Your task to perform on an android device: find which apps use the phone's location Image 0: 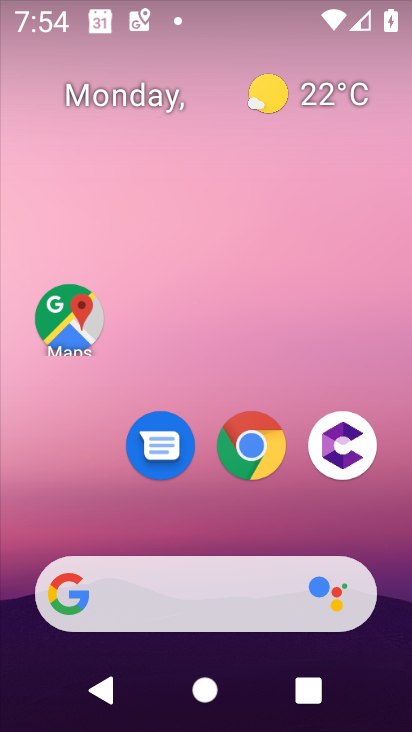
Step 0: press home button
Your task to perform on an android device: find which apps use the phone's location Image 1: 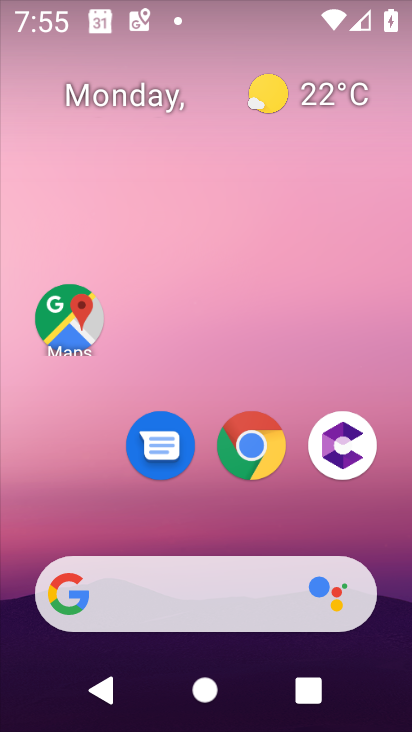
Step 1: drag from (208, 536) to (224, 90)
Your task to perform on an android device: find which apps use the phone's location Image 2: 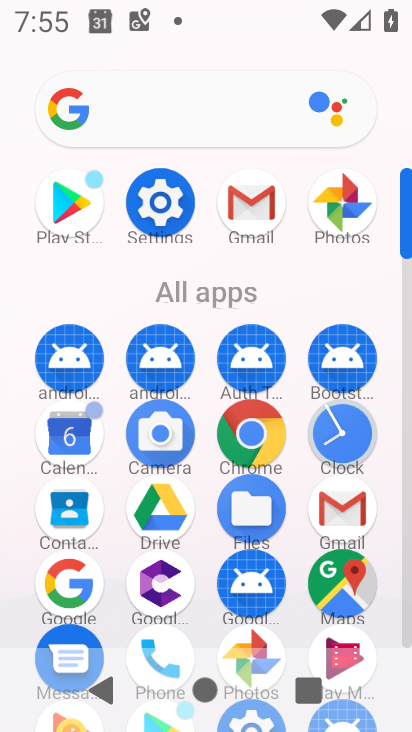
Step 2: click (167, 207)
Your task to perform on an android device: find which apps use the phone's location Image 3: 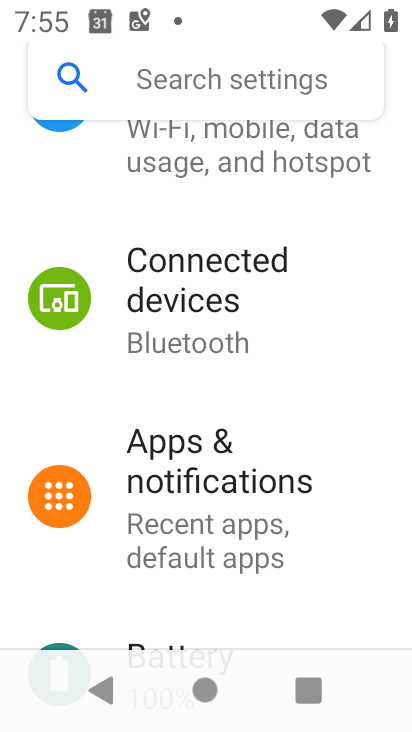
Step 3: drag from (345, 616) to (363, 226)
Your task to perform on an android device: find which apps use the phone's location Image 4: 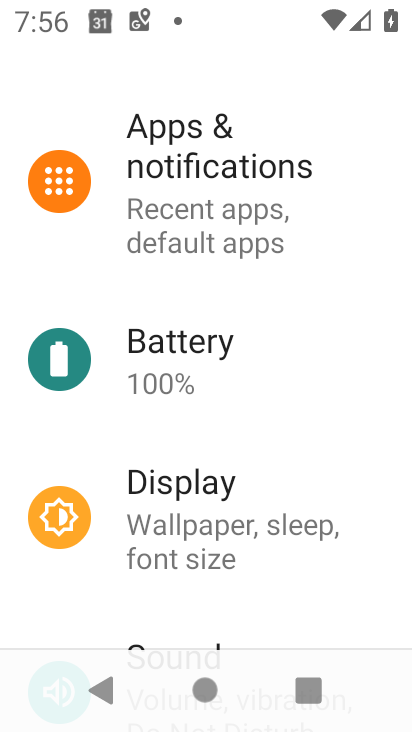
Step 4: drag from (278, 569) to (266, 217)
Your task to perform on an android device: find which apps use the phone's location Image 5: 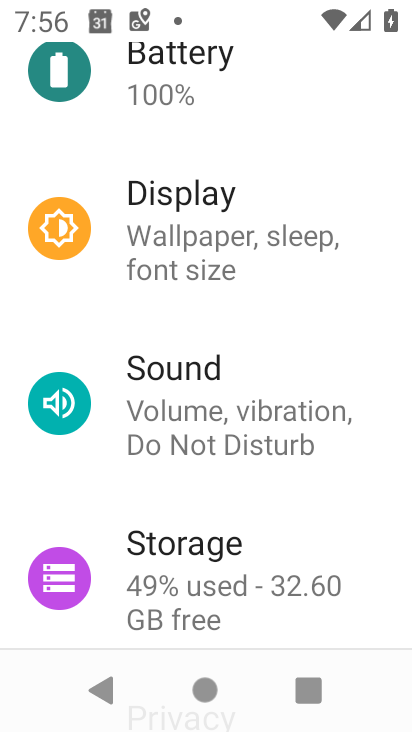
Step 5: drag from (324, 525) to (297, 166)
Your task to perform on an android device: find which apps use the phone's location Image 6: 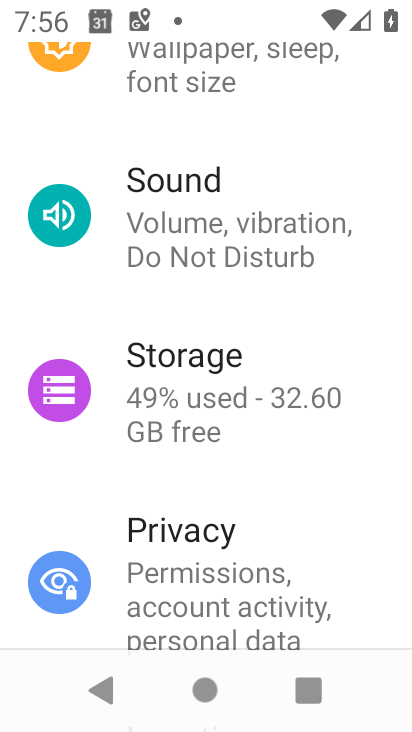
Step 6: drag from (363, 512) to (296, 10)
Your task to perform on an android device: find which apps use the phone's location Image 7: 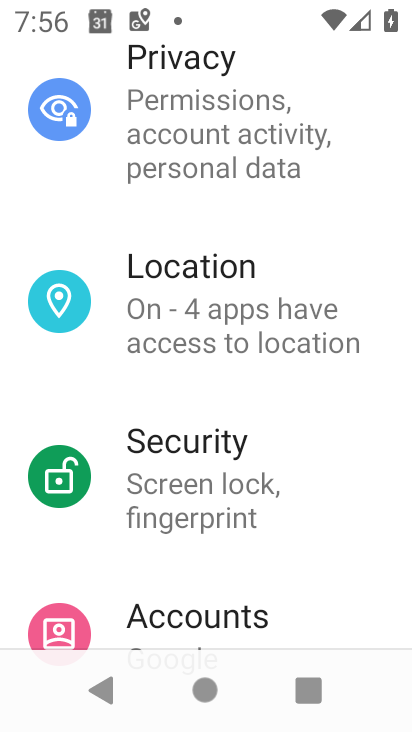
Step 7: click (215, 309)
Your task to perform on an android device: find which apps use the phone's location Image 8: 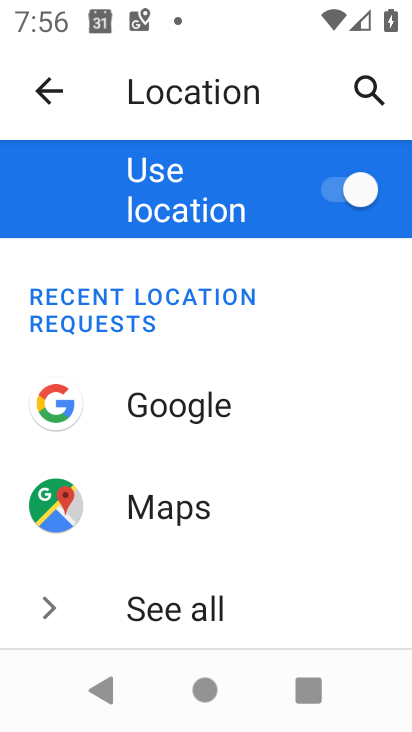
Step 8: drag from (349, 397) to (337, 71)
Your task to perform on an android device: find which apps use the phone's location Image 9: 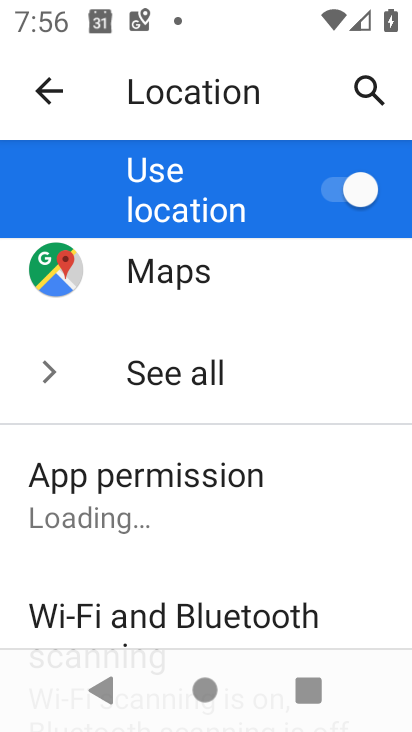
Step 9: click (116, 485)
Your task to perform on an android device: find which apps use the phone's location Image 10: 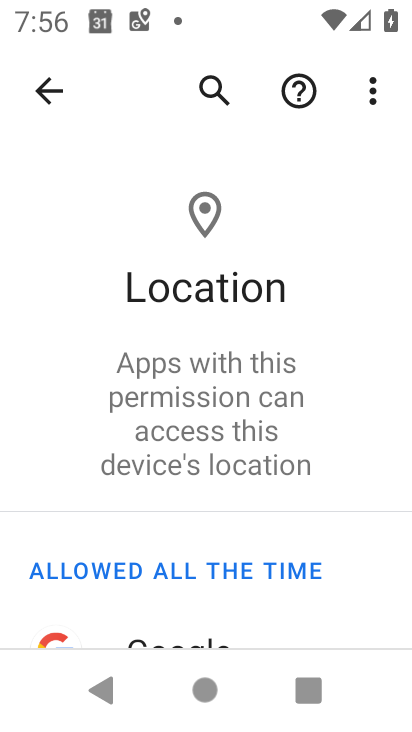
Step 10: task complete